Your task to perform on an android device: change timer sound Image 0: 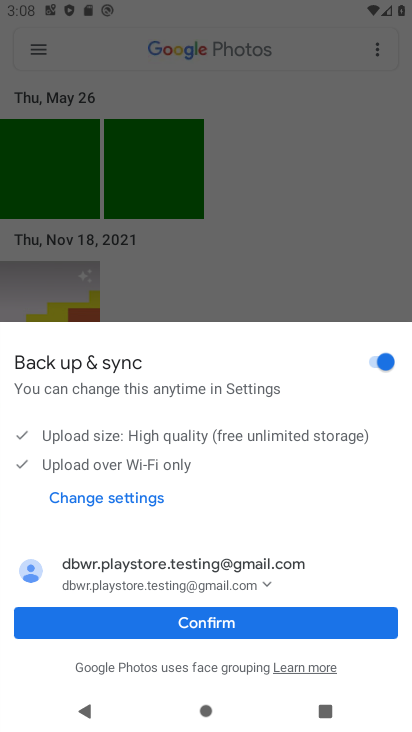
Step 0: press home button
Your task to perform on an android device: change timer sound Image 1: 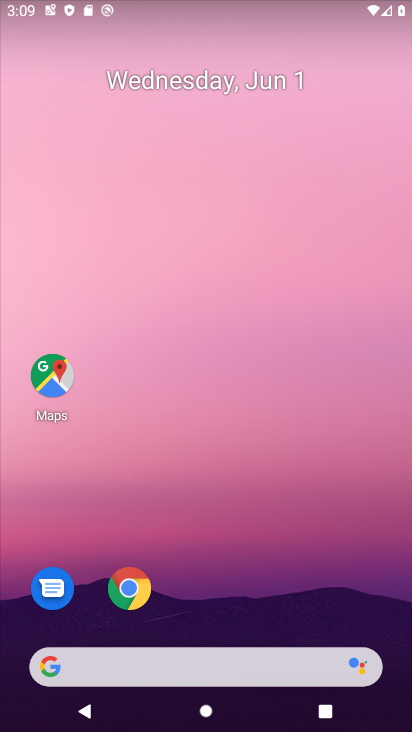
Step 1: drag from (206, 599) to (202, 205)
Your task to perform on an android device: change timer sound Image 2: 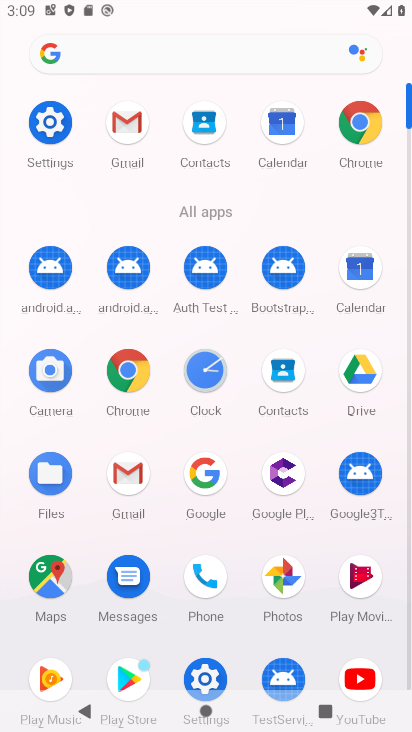
Step 2: click (208, 382)
Your task to perform on an android device: change timer sound Image 3: 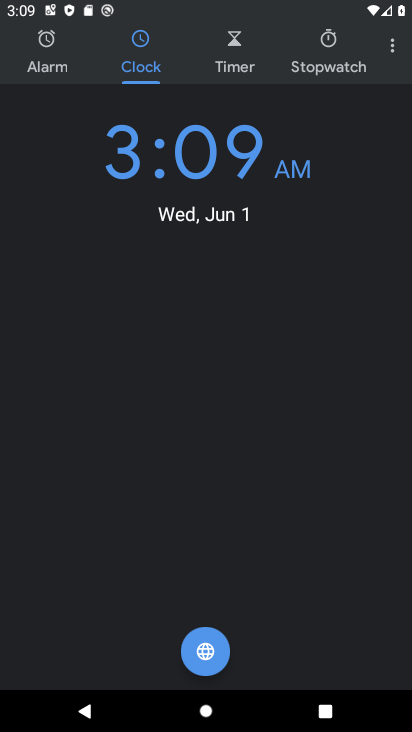
Step 3: click (392, 47)
Your task to perform on an android device: change timer sound Image 4: 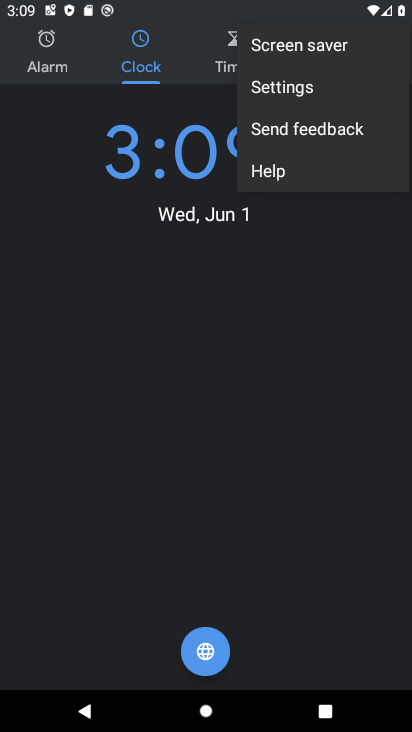
Step 4: click (321, 92)
Your task to perform on an android device: change timer sound Image 5: 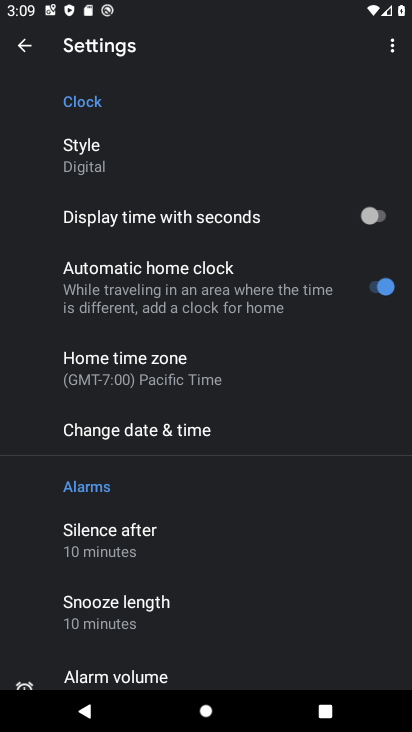
Step 5: drag from (345, 535) to (295, 353)
Your task to perform on an android device: change timer sound Image 6: 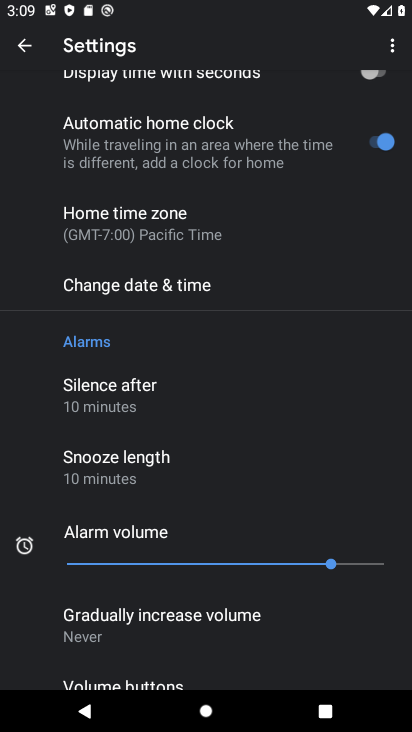
Step 6: drag from (237, 233) to (237, 80)
Your task to perform on an android device: change timer sound Image 7: 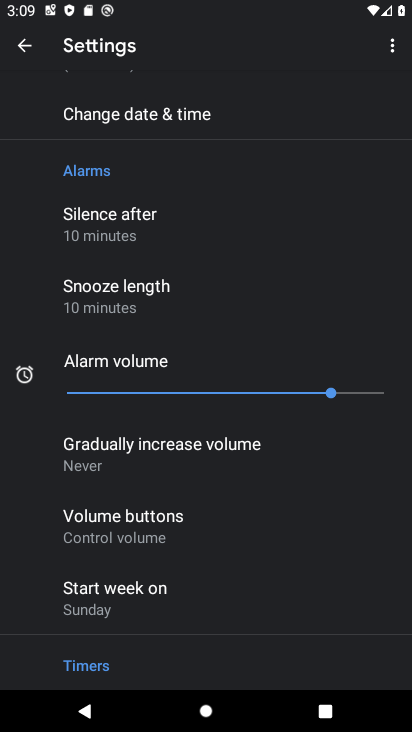
Step 7: drag from (222, 409) to (229, 242)
Your task to perform on an android device: change timer sound Image 8: 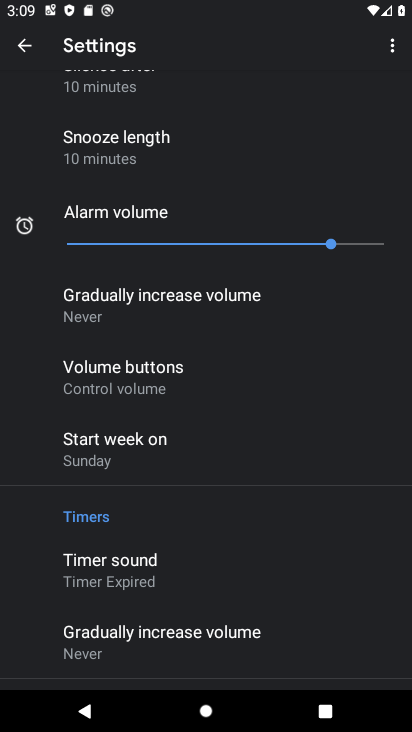
Step 8: click (197, 559)
Your task to perform on an android device: change timer sound Image 9: 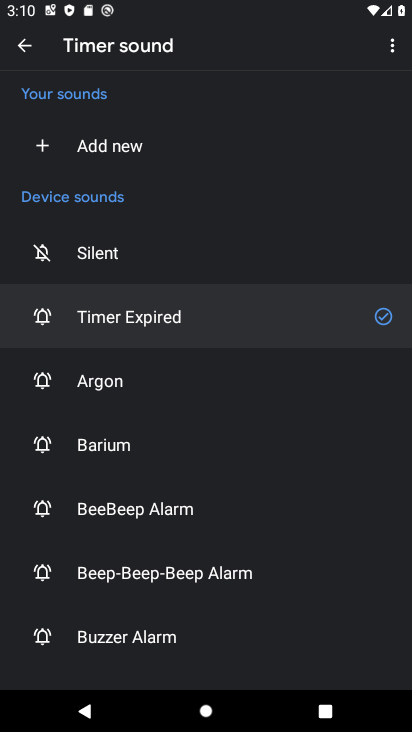
Step 9: click (163, 440)
Your task to perform on an android device: change timer sound Image 10: 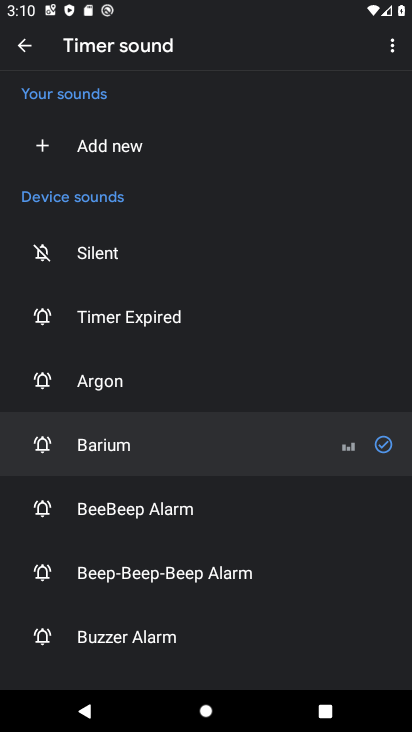
Step 10: task complete